Your task to perform on an android device: Open Chrome and go to settings Image 0: 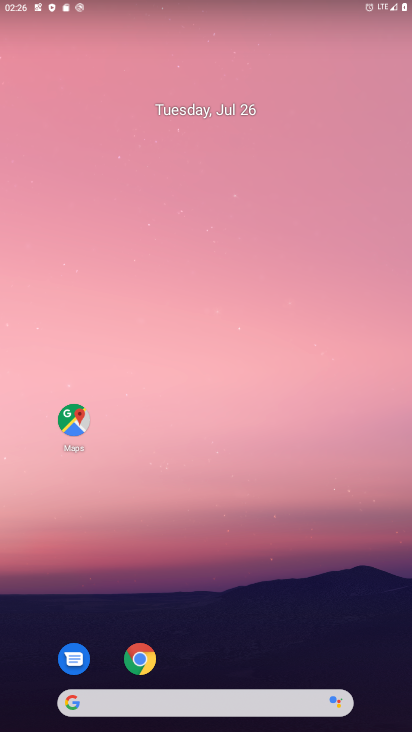
Step 0: drag from (291, 642) to (259, 95)
Your task to perform on an android device: Open Chrome and go to settings Image 1: 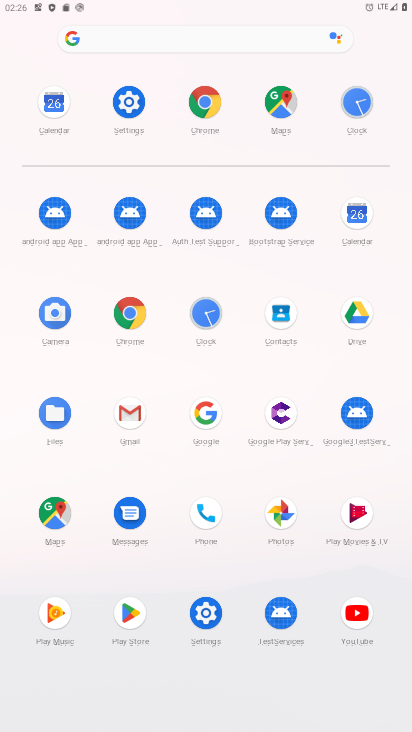
Step 1: click (210, 107)
Your task to perform on an android device: Open Chrome and go to settings Image 2: 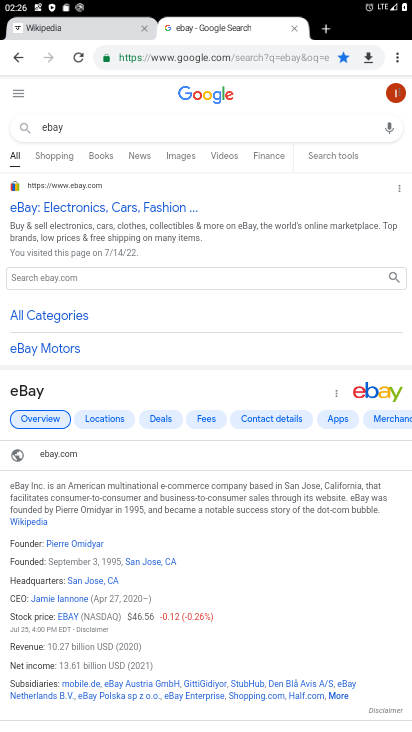
Step 2: click (398, 51)
Your task to perform on an android device: Open Chrome and go to settings Image 3: 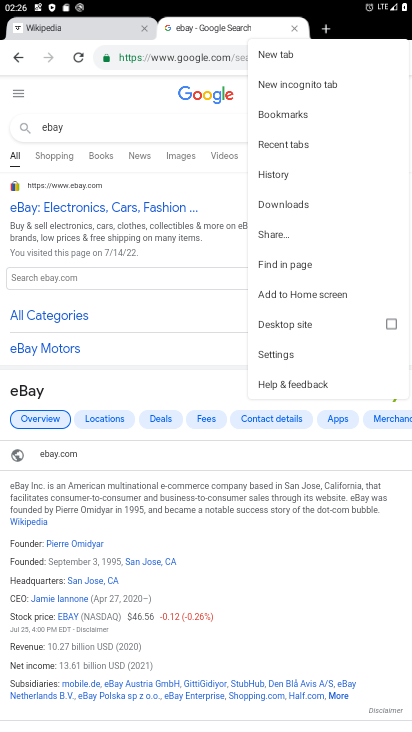
Step 3: click (279, 358)
Your task to perform on an android device: Open Chrome and go to settings Image 4: 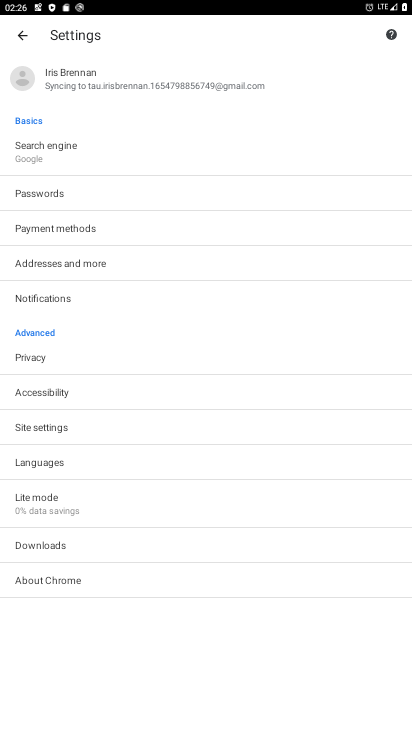
Step 4: task complete